Your task to perform on an android device: Is it going to rain tomorrow? Image 0: 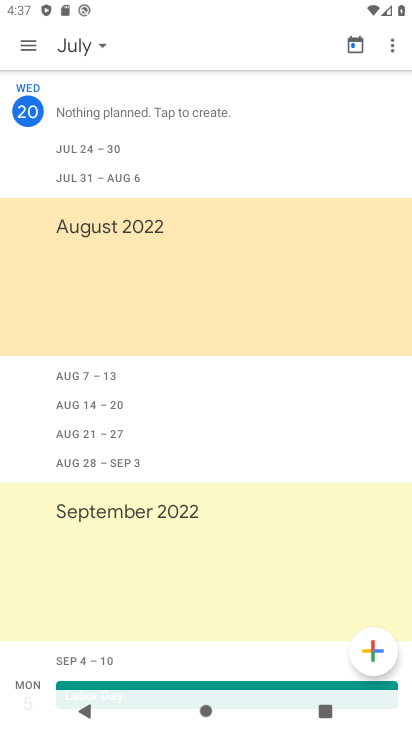
Step 0: press home button
Your task to perform on an android device: Is it going to rain tomorrow? Image 1: 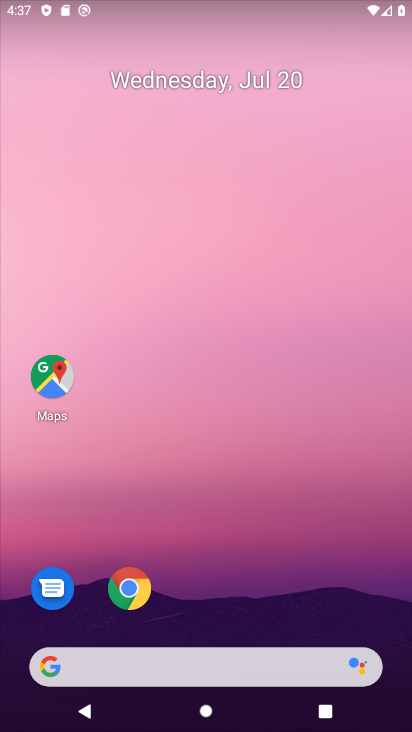
Step 1: drag from (240, 611) to (196, 68)
Your task to perform on an android device: Is it going to rain tomorrow? Image 2: 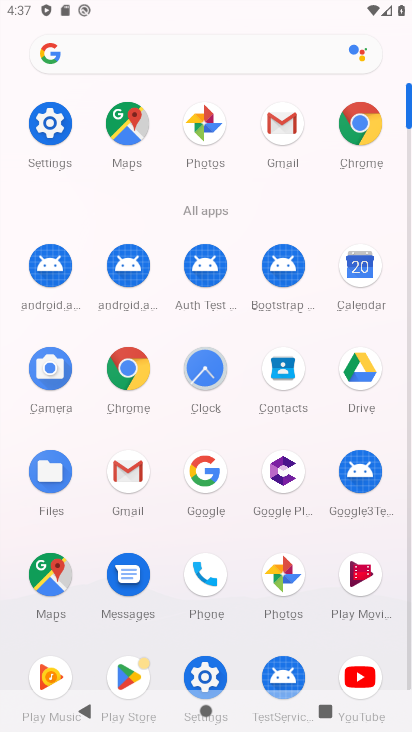
Step 2: click (367, 120)
Your task to perform on an android device: Is it going to rain tomorrow? Image 3: 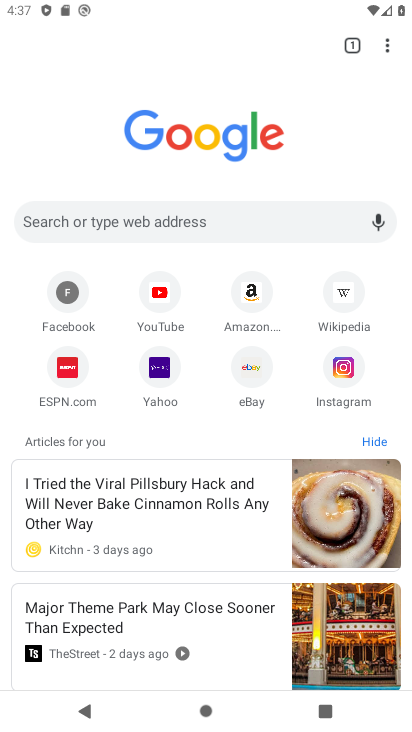
Step 3: click (289, 217)
Your task to perform on an android device: Is it going to rain tomorrow? Image 4: 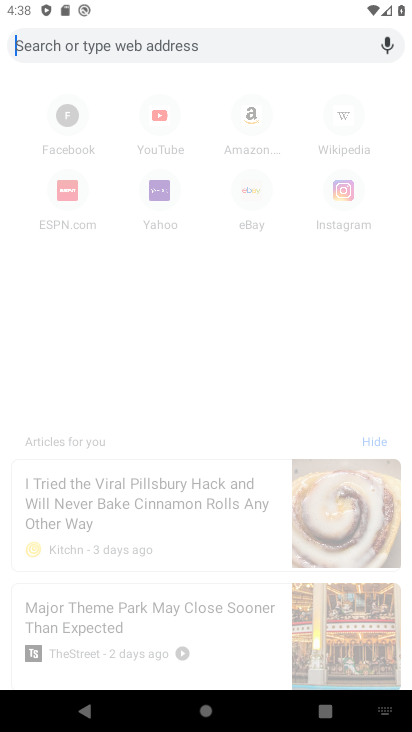
Step 4: type "Is it going to rain tomorrow?"
Your task to perform on an android device: Is it going to rain tomorrow? Image 5: 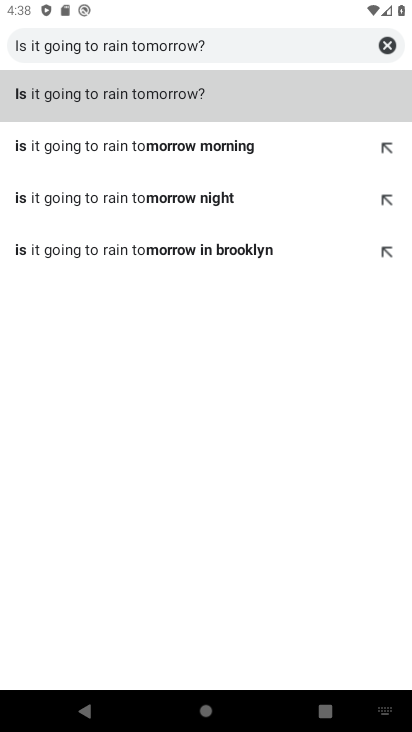
Step 5: click (162, 95)
Your task to perform on an android device: Is it going to rain tomorrow? Image 6: 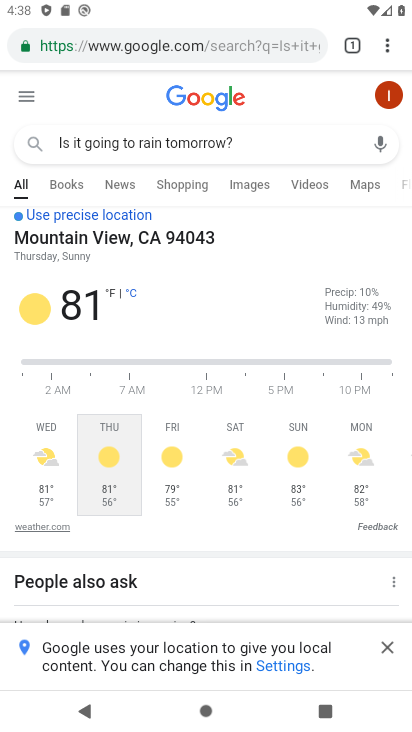
Step 6: task complete